Your task to perform on an android device: Add "usb-b" to the cart on amazon.com, then select checkout. Image 0: 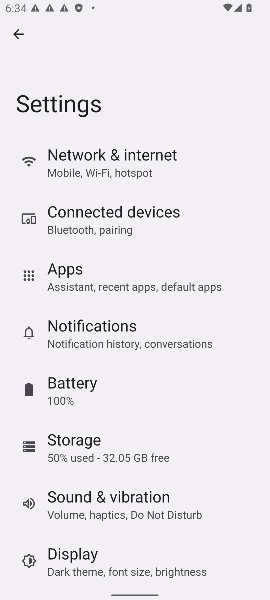
Step 0: press home button
Your task to perform on an android device: Add "usb-b" to the cart on amazon.com, then select checkout. Image 1: 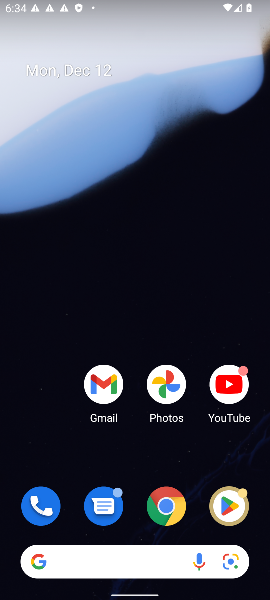
Step 1: click (144, 563)
Your task to perform on an android device: Add "usb-b" to the cart on amazon.com, then select checkout. Image 2: 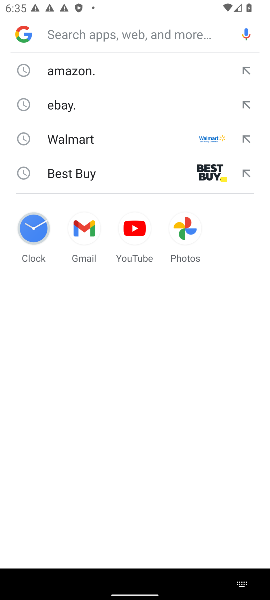
Step 2: click (55, 66)
Your task to perform on an android device: Add "usb-b" to the cart on amazon.com, then select checkout. Image 3: 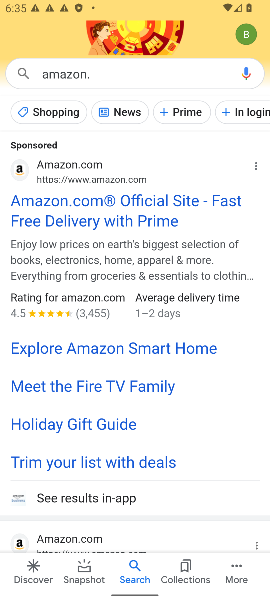
Step 3: click (48, 215)
Your task to perform on an android device: Add "usb-b" to the cart on amazon.com, then select checkout. Image 4: 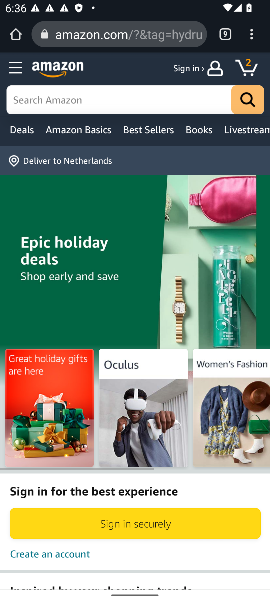
Step 4: click (107, 91)
Your task to perform on an android device: Add "usb-b" to the cart on amazon.com, then select checkout. Image 5: 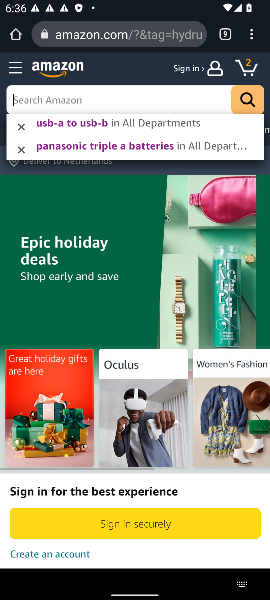
Step 5: type "usb-b"
Your task to perform on an android device: Add "usb-b" to the cart on amazon.com, then select checkout. Image 6: 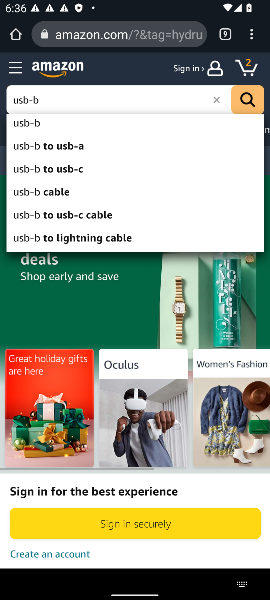
Step 6: click (239, 113)
Your task to perform on an android device: Add "usb-b" to the cart on amazon.com, then select checkout. Image 7: 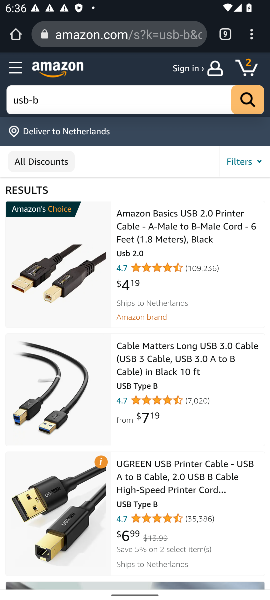
Step 7: click (128, 215)
Your task to perform on an android device: Add "usb-b" to the cart on amazon.com, then select checkout. Image 8: 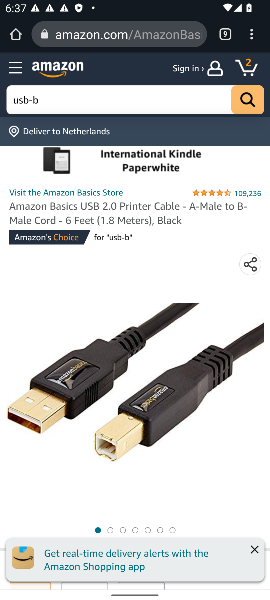
Step 8: drag from (167, 518) to (149, 414)
Your task to perform on an android device: Add "usb-b" to the cart on amazon.com, then select checkout. Image 9: 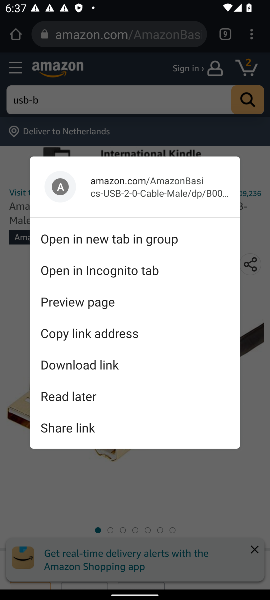
Step 9: click (121, 499)
Your task to perform on an android device: Add "usb-b" to the cart on amazon.com, then select checkout. Image 10: 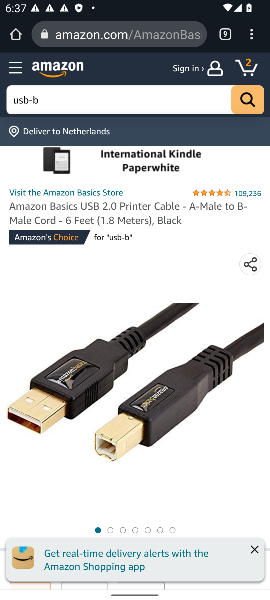
Step 10: drag from (121, 499) to (115, 315)
Your task to perform on an android device: Add "usb-b" to the cart on amazon.com, then select checkout. Image 11: 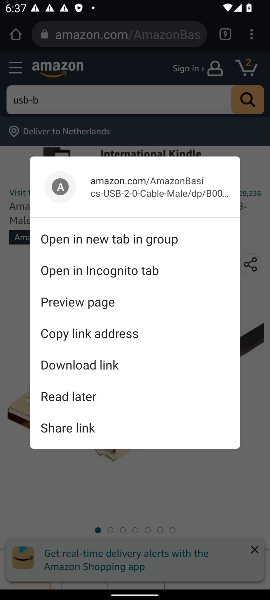
Step 11: click (114, 497)
Your task to perform on an android device: Add "usb-b" to the cart on amazon.com, then select checkout. Image 12: 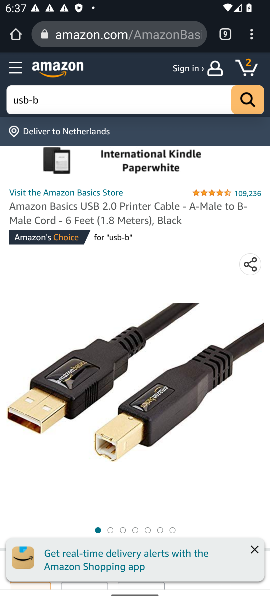
Step 12: click (255, 547)
Your task to perform on an android device: Add "usb-b" to the cart on amazon.com, then select checkout. Image 13: 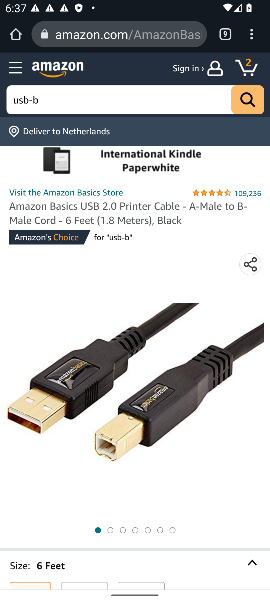
Step 13: drag from (223, 529) to (171, 156)
Your task to perform on an android device: Add "usb-b" to the cart on amazon.com, then select checkout. Image 14: 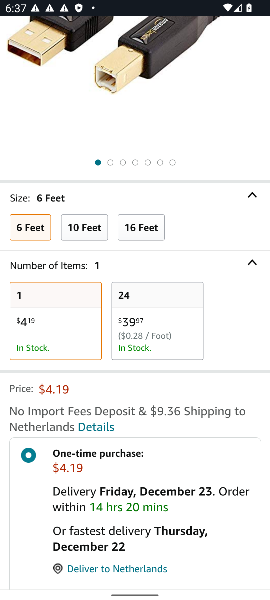
Step 14: drag from (213, 555) to (183, 301)
Your task to perform on an android device: Add "usb-b" to the cart on amazon.com, then select checkout. Image 15: 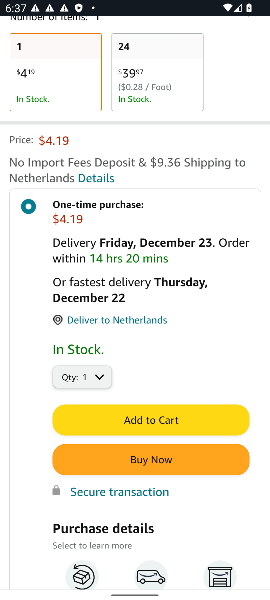
Step 15: click (191, 406)
Your task to perform on an android device: Add "usb-b" to the cart on amazon.com, then select checkout. Image 16: 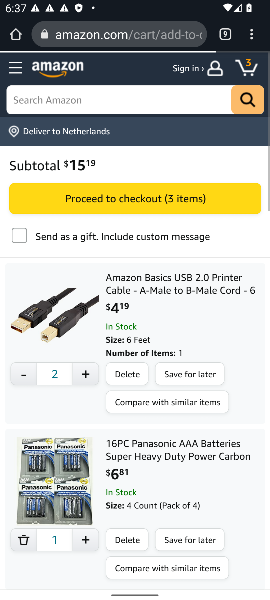
Step 16: task complete